Your task to perform on an android device: Is it going to rain today? Image 0: 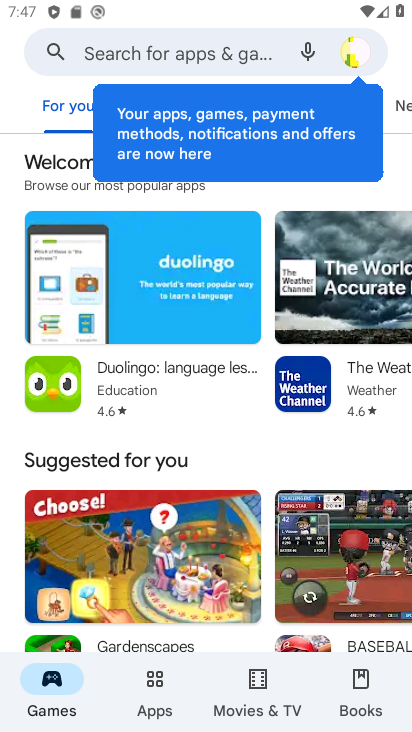
Step 0: click (166, 54)
Your task to perform on an android device: Is it going to rain today? Image 1: 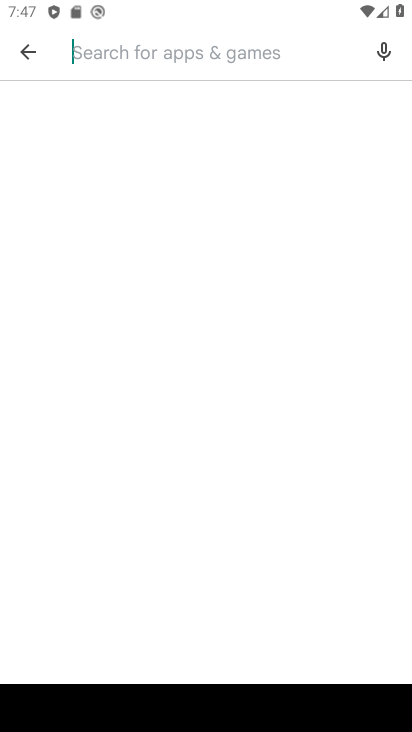
Step 1: type "weather"
Your task to perform on an android device: Is it going to rain today? Image 2: 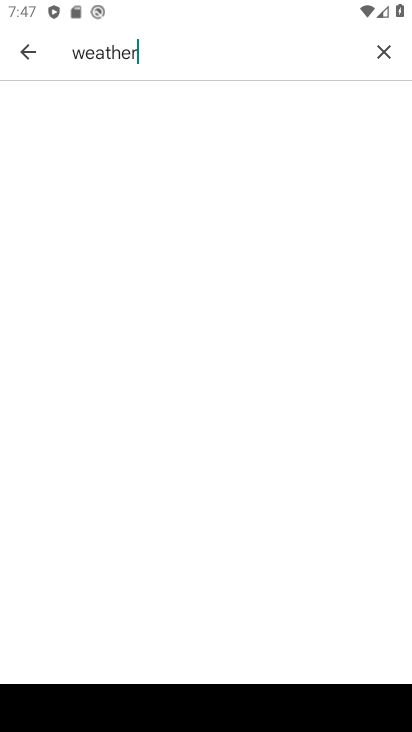
Step 2: type ""
Your task to perform on an android device: Is it going to rain today? Image 3: 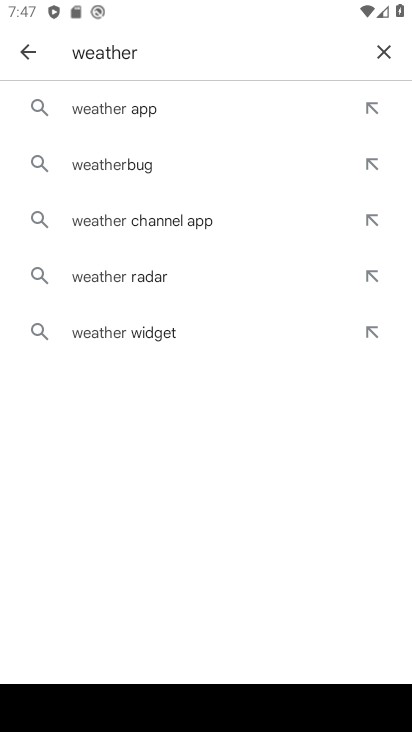
Step 3: click (113, 106)
Your task to perform on an android device: Is it going to rain today? Image 4: 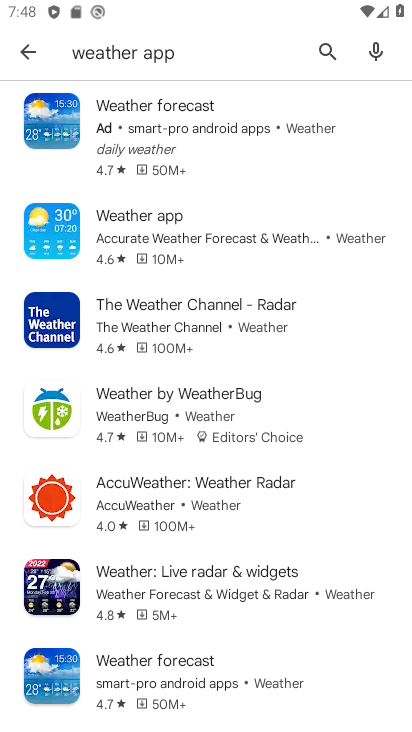
Step 4: click (209, 54)
Your task to perform on an android device: Is it going to rain today? Image 5: 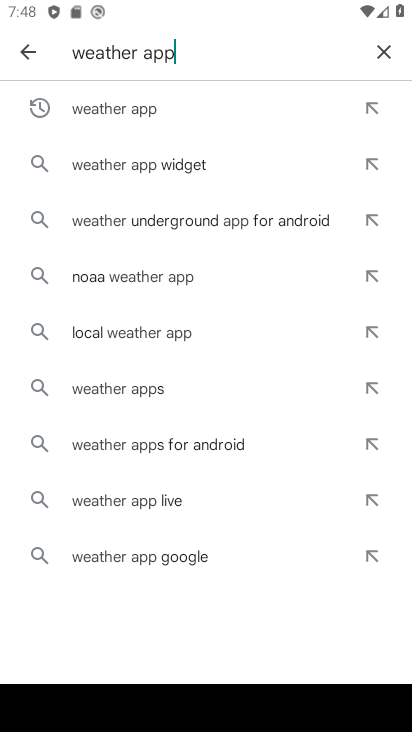
Step 5: type "weather"
Your task to perform on an android device: Is it going to rain today? Image 6: 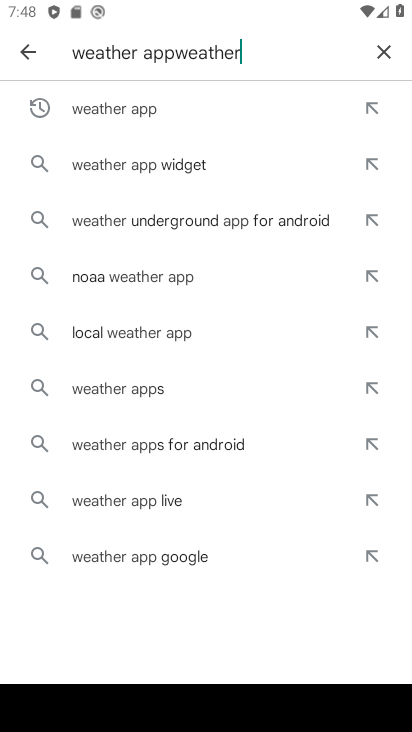
Step 6: type ""
Your task to perform on an android device: Is it going to rain today? Image 7: 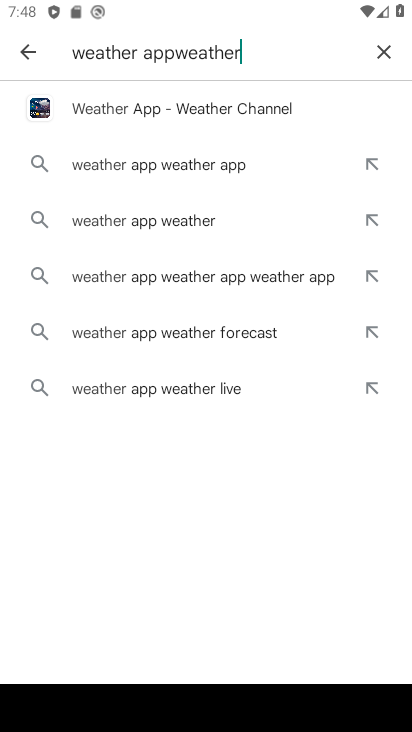
Step 7: click (383, 56)
Your task to perform on an android device: Is it going to rain today? Image 8: 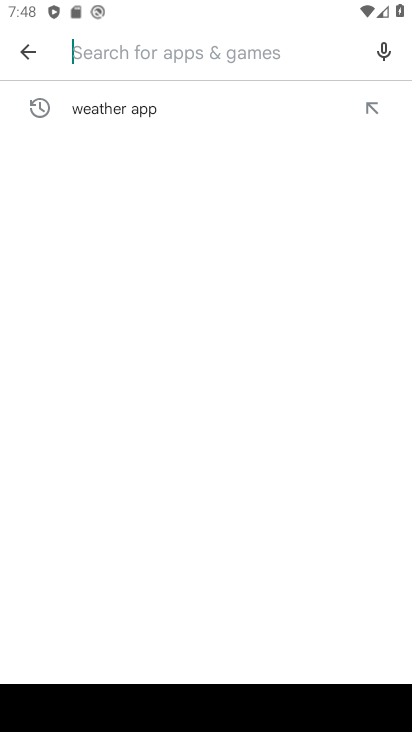
Step 8: type "weather"
Your task to perform on an android device: Is it going to rain today? Image 9: 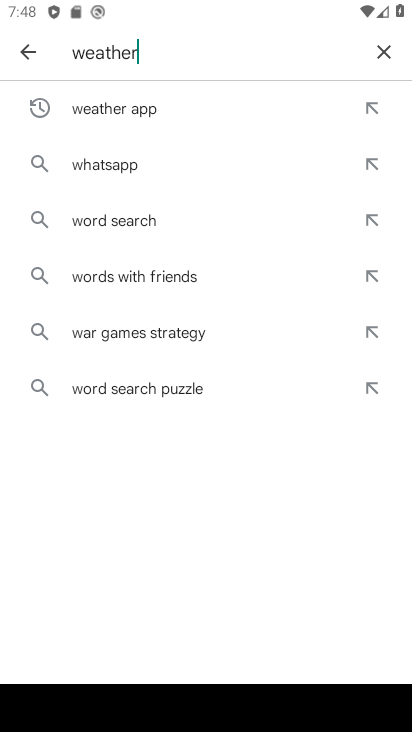
Step 9: type ""
Your task to perform on an android device: Is it going to rain today? Image 10: 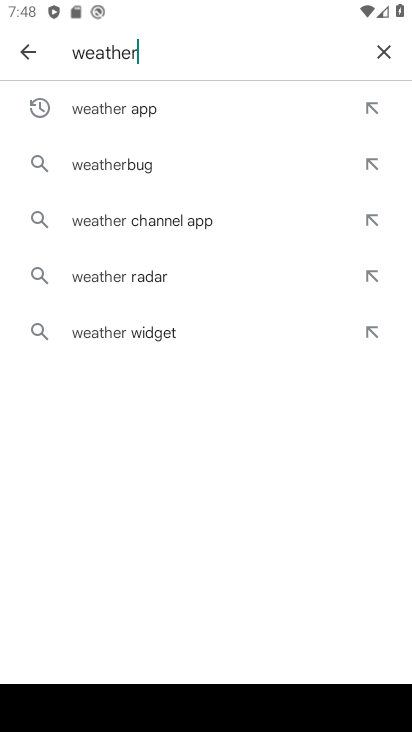
Step 10: click (21, 55)
Your task to perform on an android device: Is it going to rain today? Image 11: 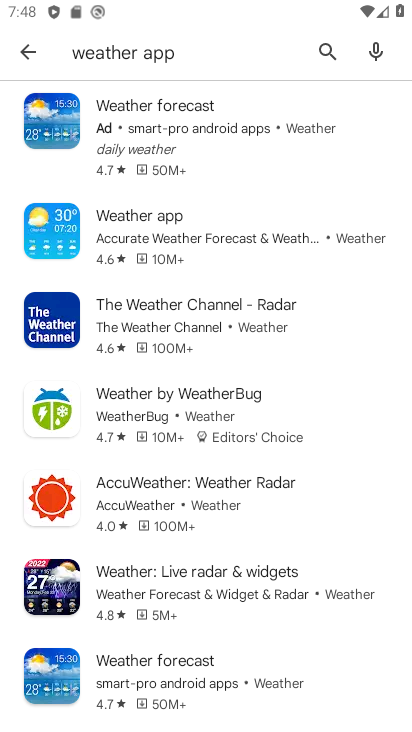
Step 11: click (20, 55)
Your task to perform on an android device: Is it going to rain today? Image 12: 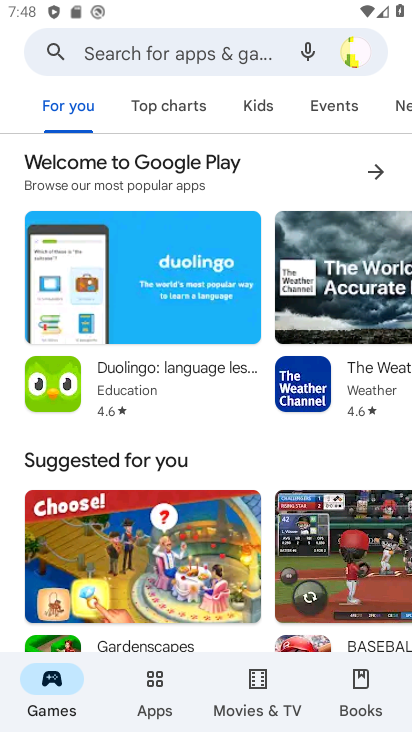
Step 12: task complete